Your task to perform on an android device: Turn off the flashlight Image 0: 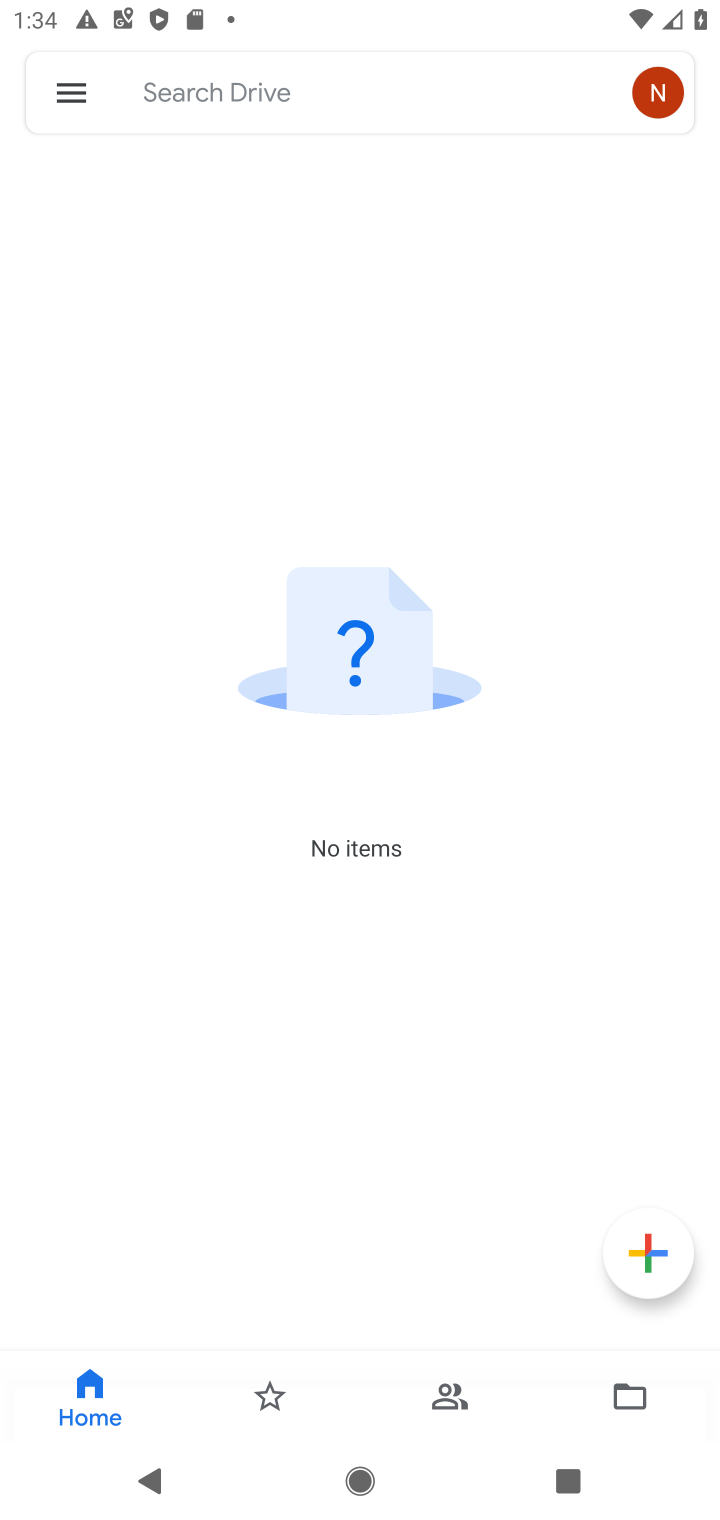
Step 0: press home button
Your task to perform on an android device: Turn off the flashlight Image 1: 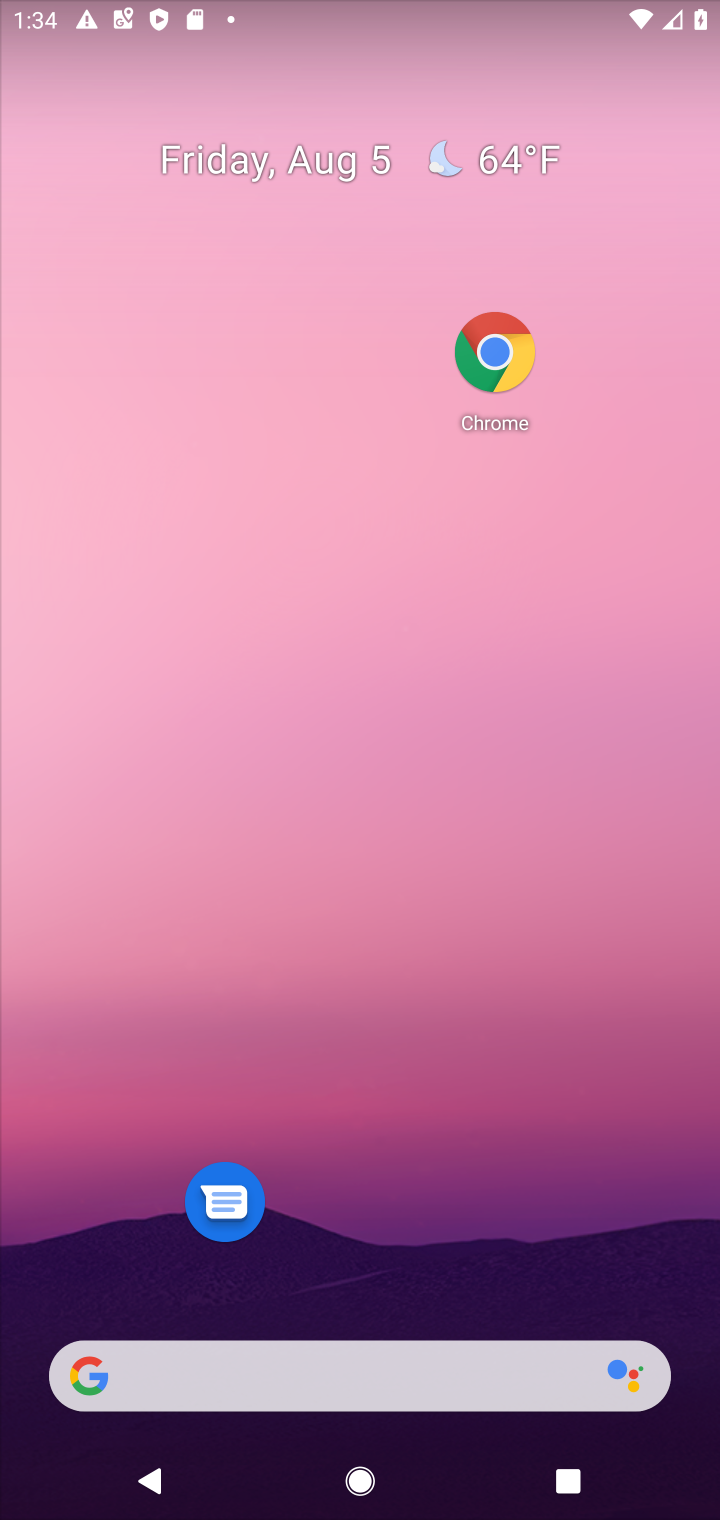
Step 1: drag from (552, 1270) to (390, 185)
Your task to perform on an android device: Turn off the flashlight Image 2: 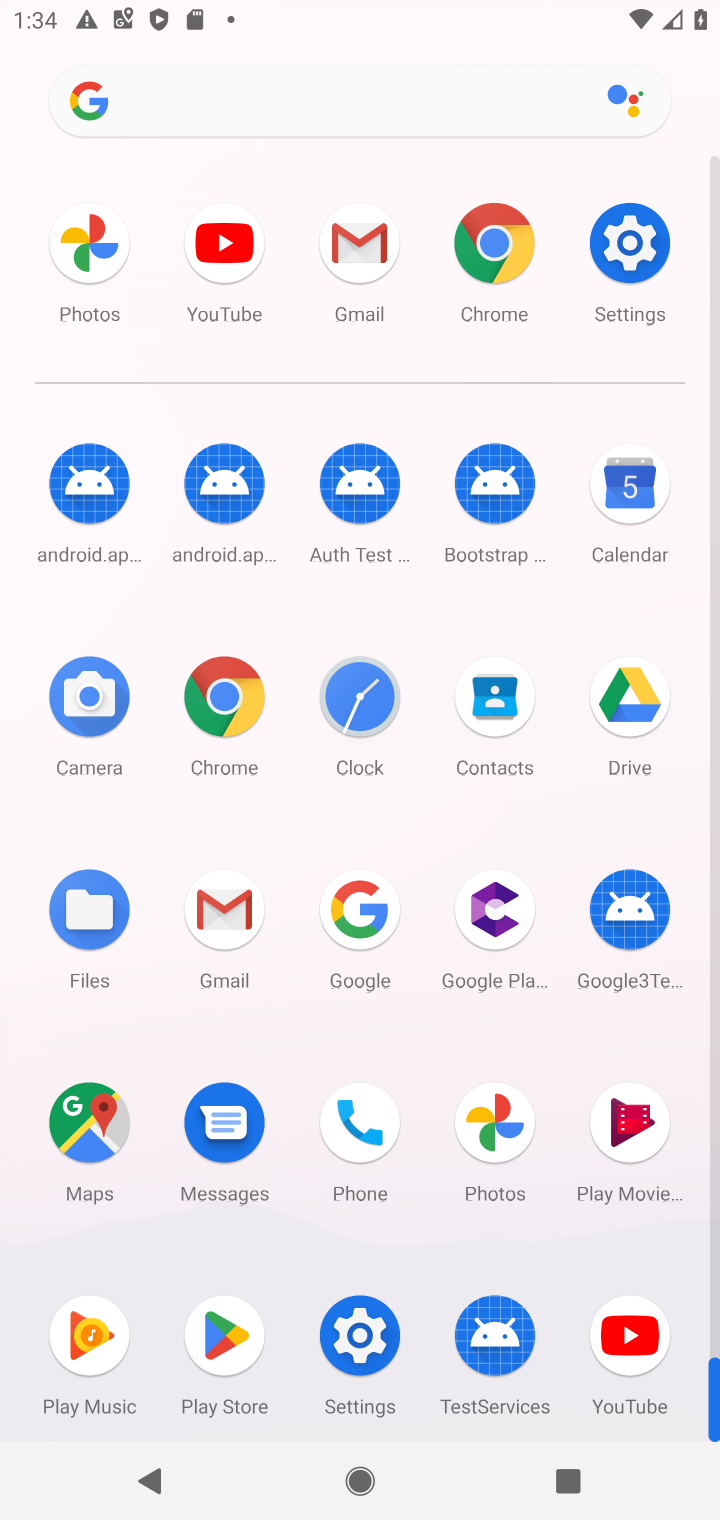
Step 2: click (356, 1323)
Your task to perform on an android device: Turn off the flashlight Image 3: 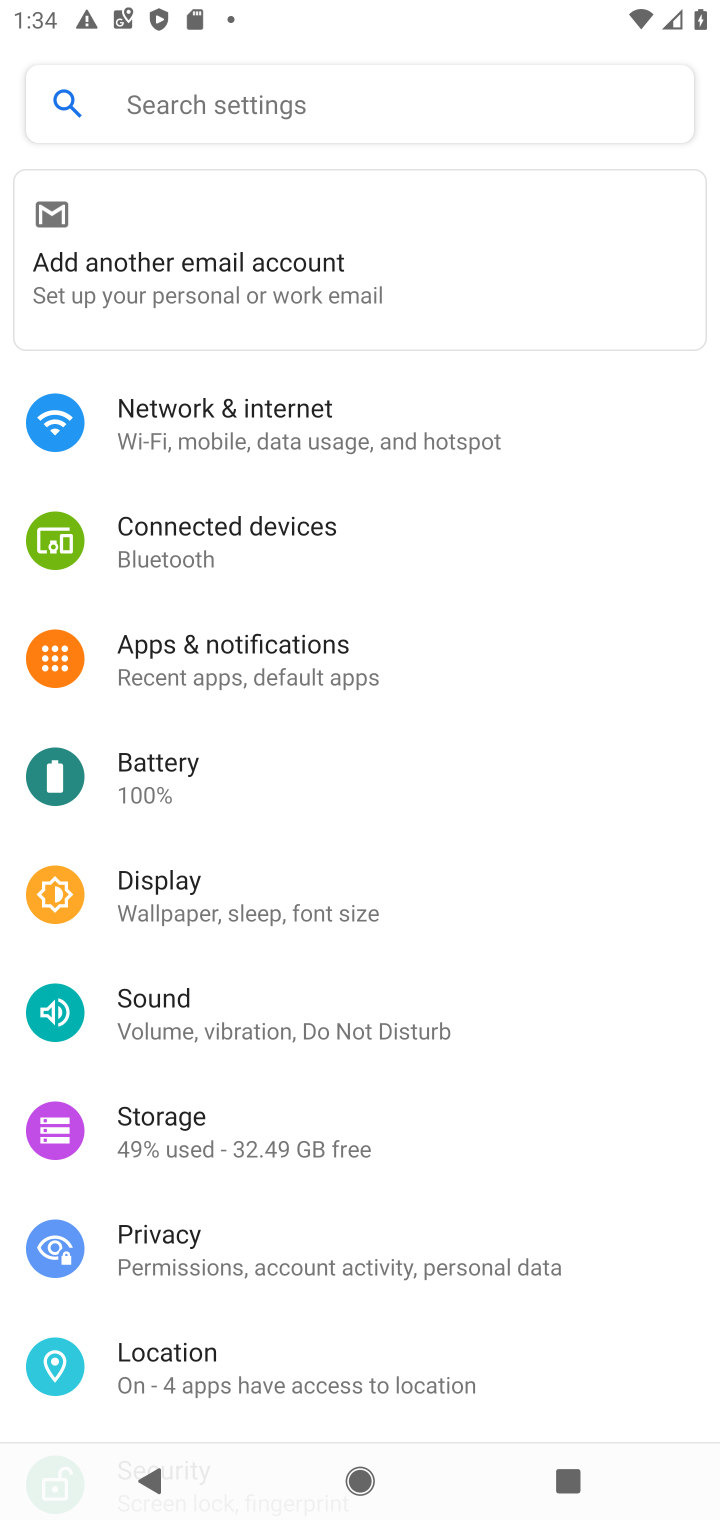
Step 3: click (177, 888)
Your task to perform on an android device: Turn off the flashlight Image 4: 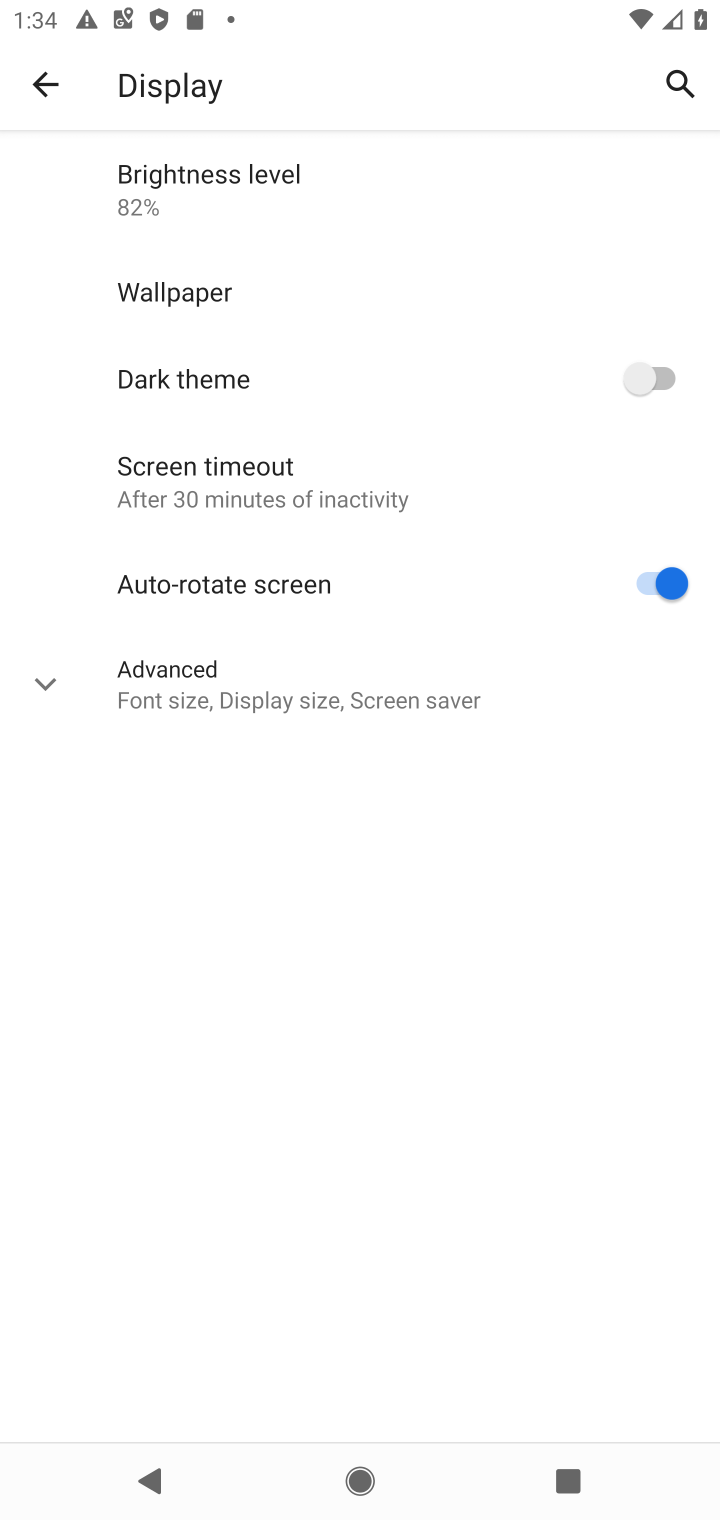
Step 4: click (209, 505)
Your task to perform on an android device: Turn off the flashlight Image 5: 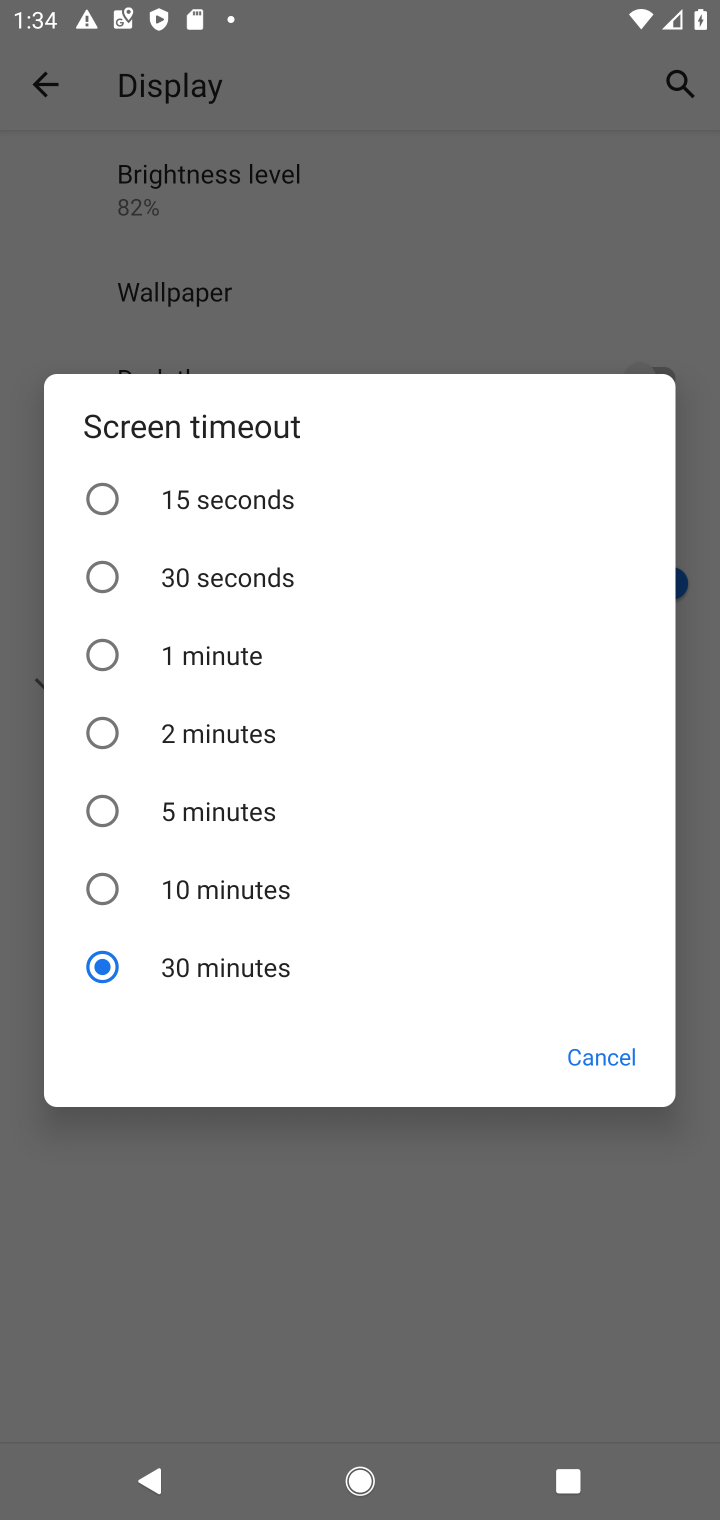
Step 5: task complete